Your task to perform on an android device: snooze an email in the gmail app Image 0: 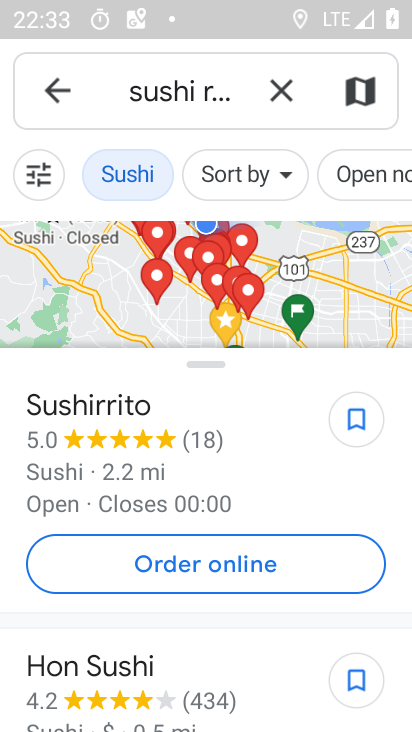
Step 0: press home button
Your task to perform on an android device: snooze an email in the gmail app Image 1: 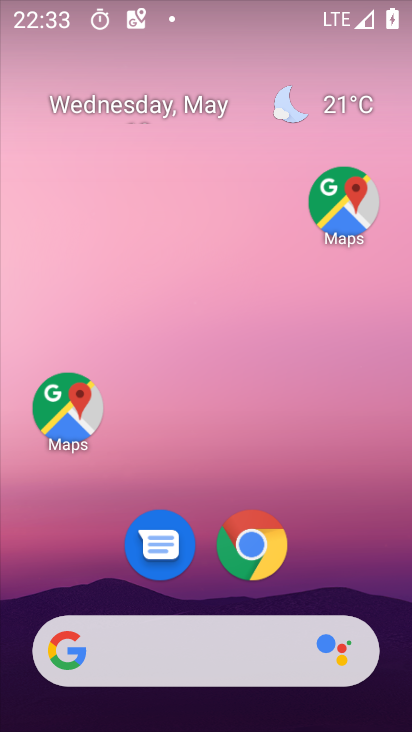
Step 1: drag from (194, 598) to (258, 147)
Your task to perform on an android device: snooze an email in the gmail app Image 2: 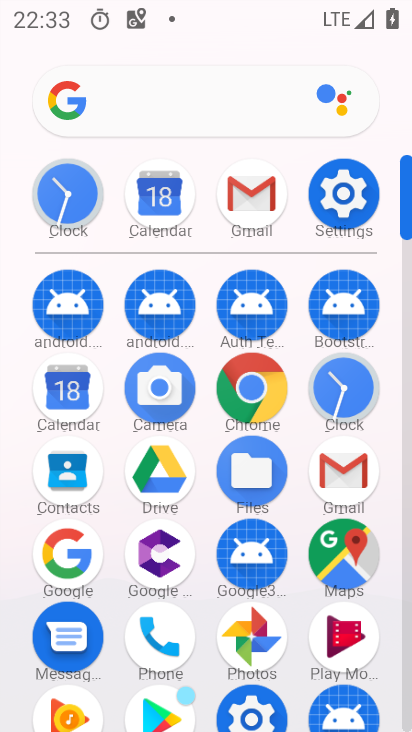
Step 2: click (339, 473)
Your task to perform on an android device: snooze an email in the gmail app Image 3: 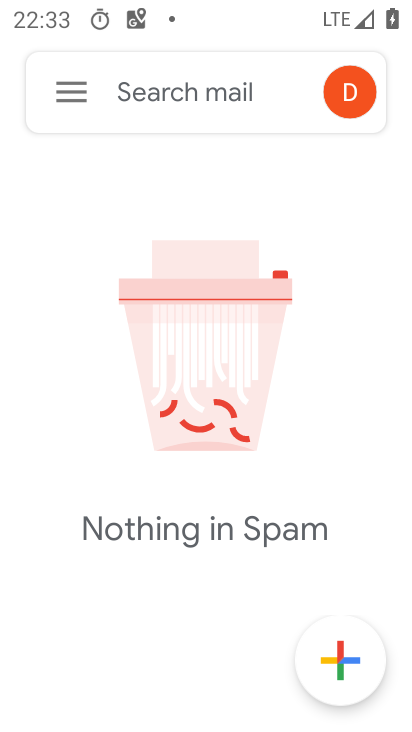
Step 3: click (58, 112)
Your task to perform on an android device: snooze an email in the gmail app Image 4: 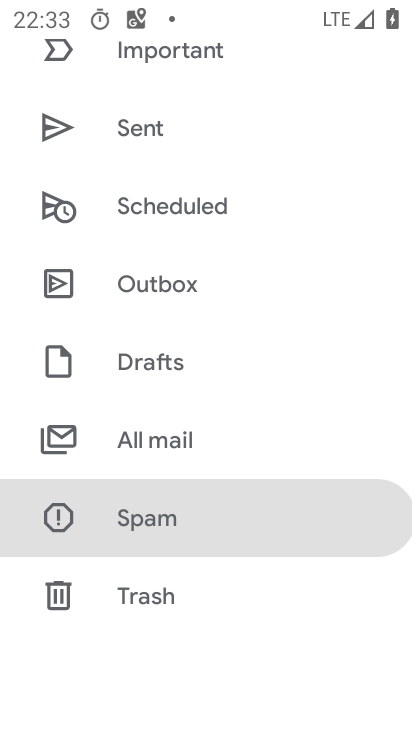
Step 4: click (129, 450)
Your task to perform on an android device: snooze an email in the gmail app Image 5: 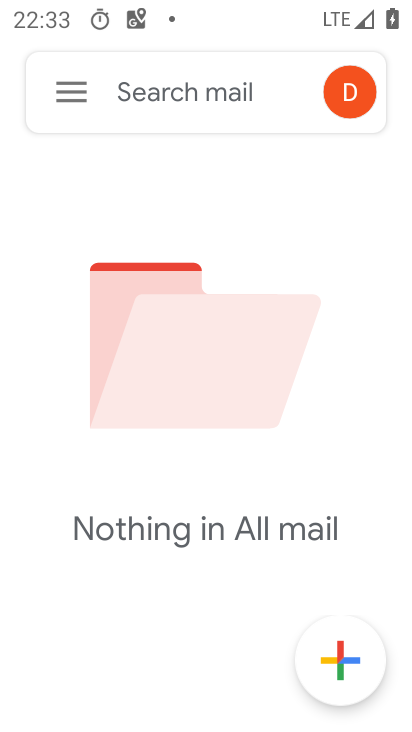
Step 5: task complete